Your task to perform on an android device: find snoozed emails in the gmail app Image 0: 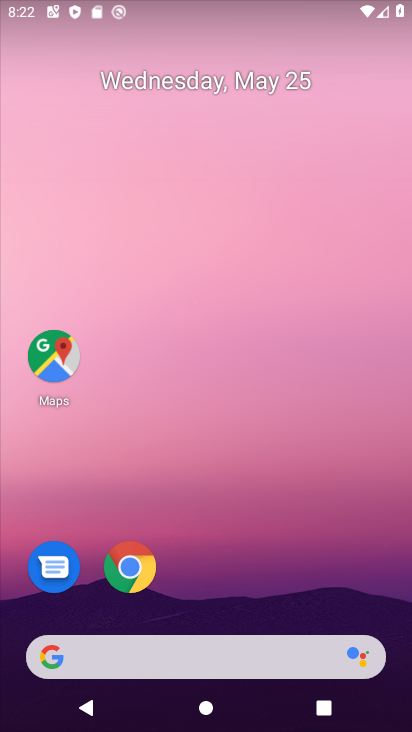
Step 0: drag from (301, 570) to (281, 44)
Your task to perform on an android device: find snoozed emails in the gmail app Image 1: 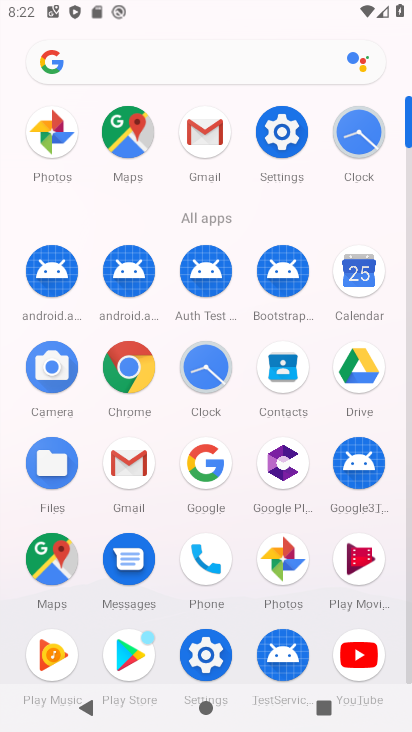
Step 1: click (222, 126)
Your task to perform on an android device: find snoozed emails in the gmail app Image 2: 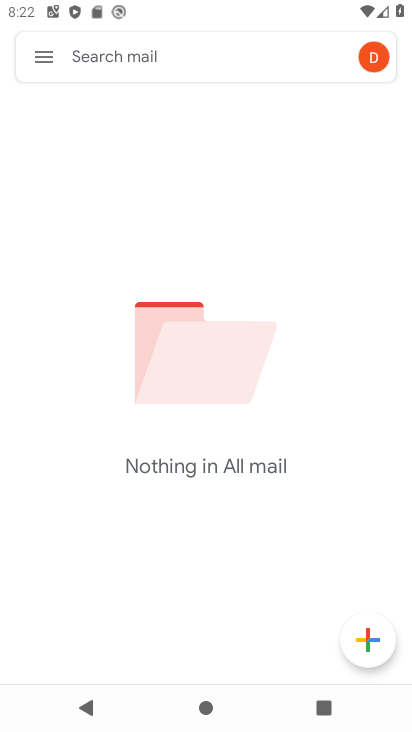
Step 2: click (47, 55)
Your task to perform on an android device: find snoozed emails in the gmail app Image 3: 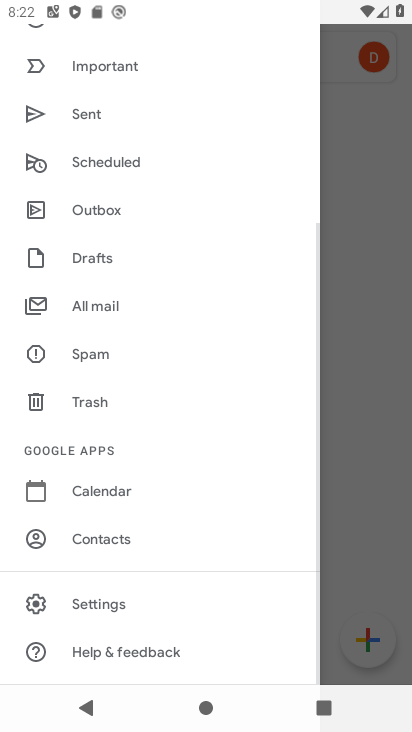
Step 3: drag from (161, 212) to (185, 551)
Your task to perform on an android device: find snoozed emails in the gmail app Image 4: 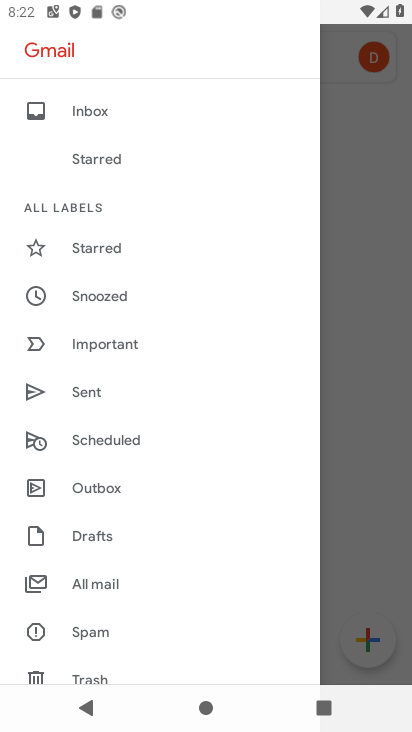
Step 4: click (125, 294)
Your task to perform on an android device: find snoozed emails in the gmail app Image 5: 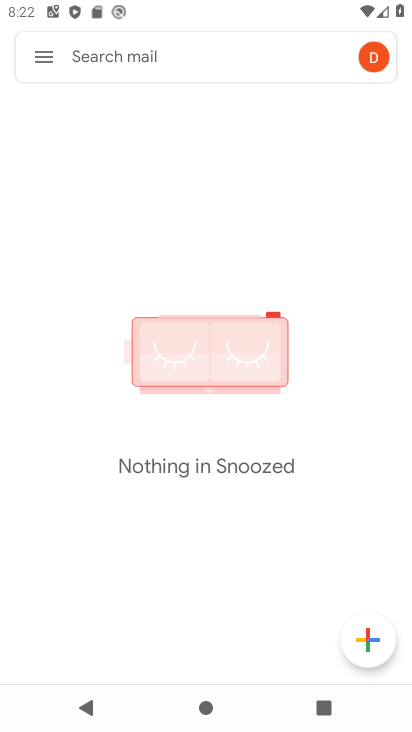
Step 5: task complete